Your task to perform on an android device: Open calendar and show me the third week of next month Image 0: 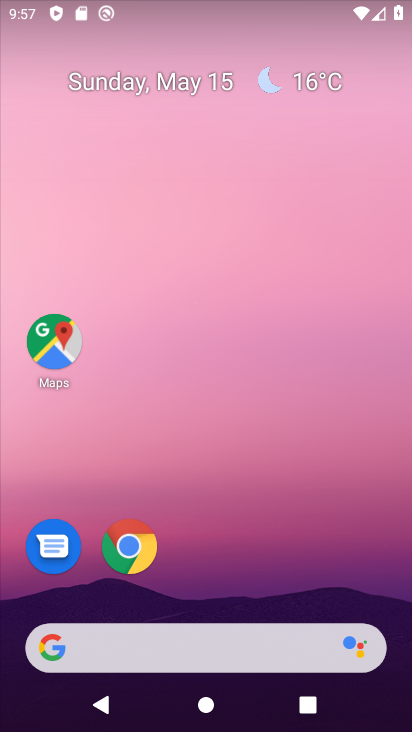
Step 0: press home button
Your task to perform on an android device: Open calendar and show me the third week of next month Image 1: 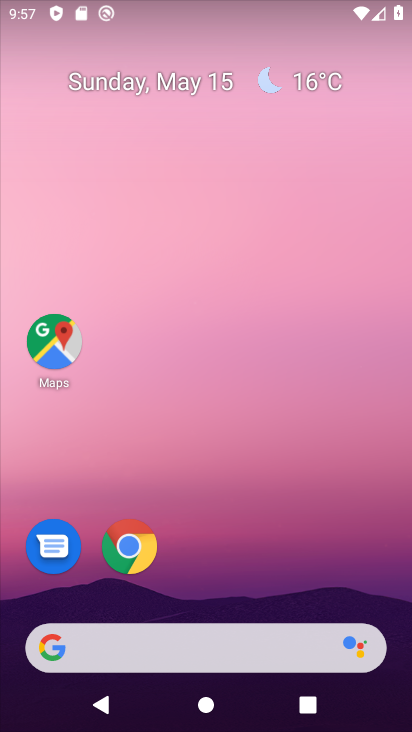
Step 1: click (203, 125)
Your task to perform on an android device: Open calendar and show me the third week of next month Image 2: 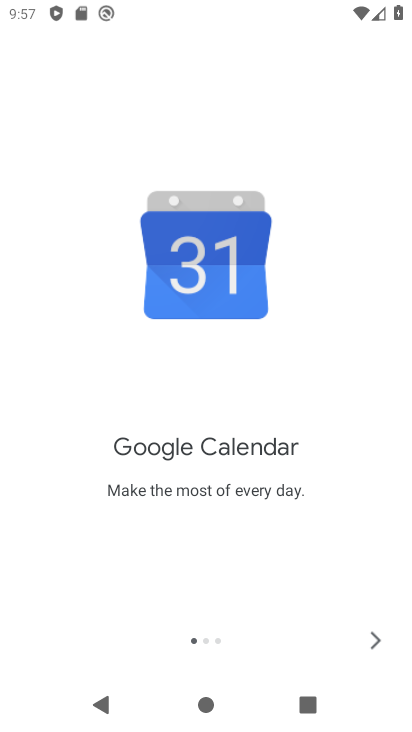
Step 2: click (377, 632)
Your task to perform on an android device: Open calendar and show me the third week of next month Image 3: 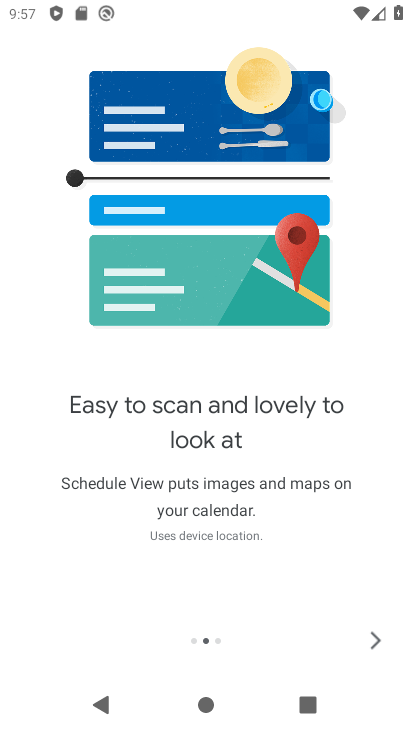
Step 3: click (379, 638)
Your task to perform on an android device: Open calendar and show me the third week of next month Image 4: 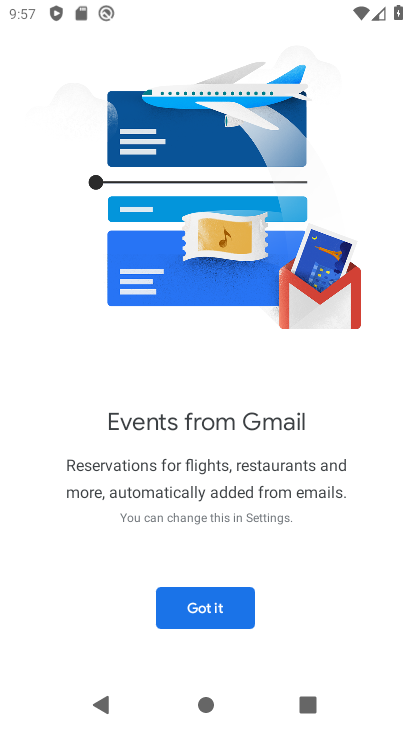
Step 4: click (214, 603)
Your task to perform on an android device: Open calendar and show me the third week of next month Image 5: 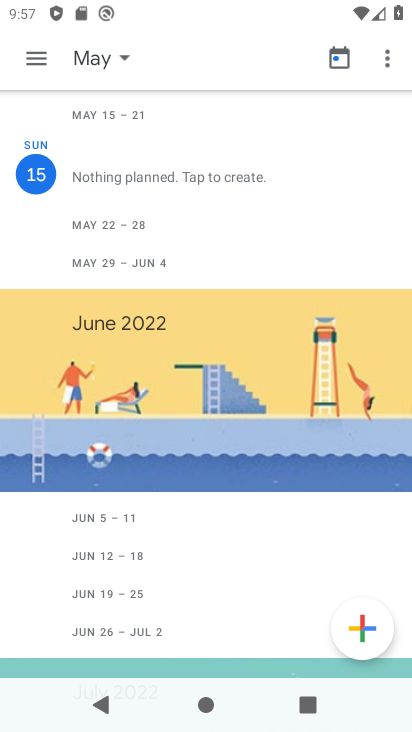
Step 5: click (122, 58)
Your task to perform on an android device: Open calendar and show me the third week of next month Image 6: 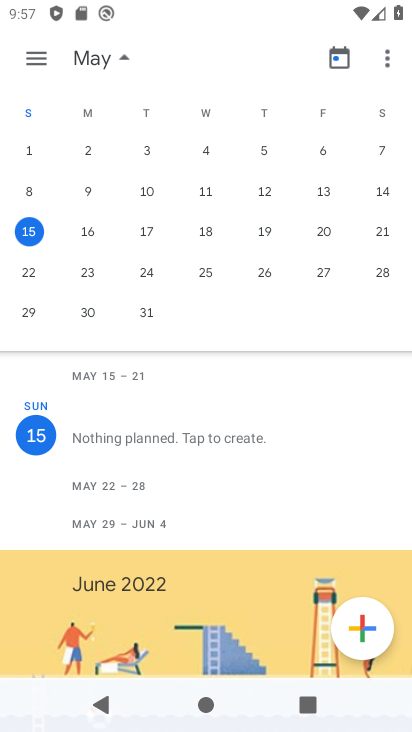
Step 6: drag from (214, 216) to (72, 227)
Your task to perform on an android device: Open calendar and show me the third week of next month Image 7: 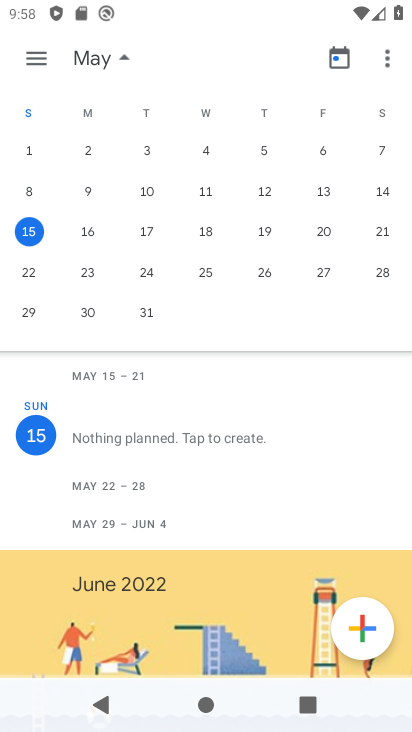
Step 7: drag from (207, 225) to (31, 266)
Your task to perform on an android device: Open calendar and show me the third week of next month Image 8: 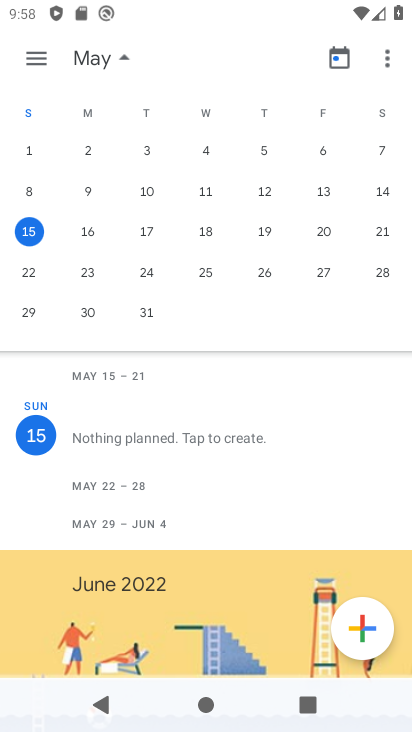
Step 8: drag from (234, 218) to (14, 298)
Your task to perform on an android device: Open calendar and show me the third week of next month Image 9: 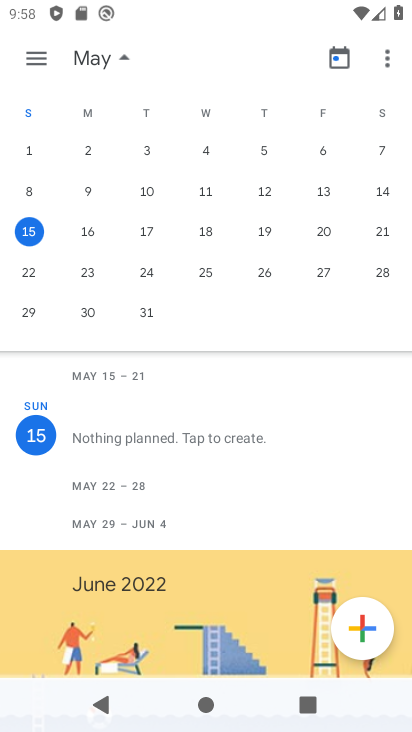
Step 9: drag from (159, 213) to (80, 242)
Your task to perform on an android device: Open calendar and show me the third week of next month Image 10: 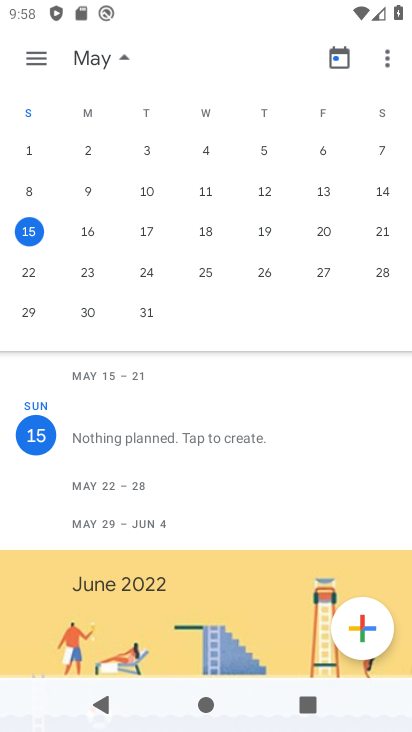
Step 10: drag from (220, 204) to (66, 220)
Your task to perform on an android device: Open calendar and show me the third week of next month Image 11: 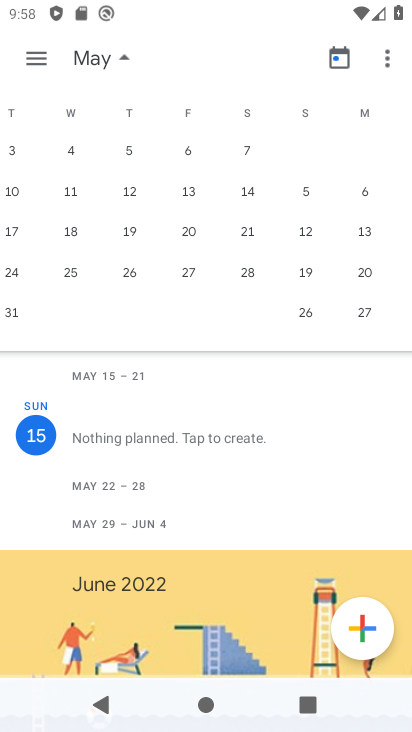
Step 11: drag from (222, 214) to (29, 221)
Your task to perform on an android device: Open calendar and show me the third week of next month Image 12: 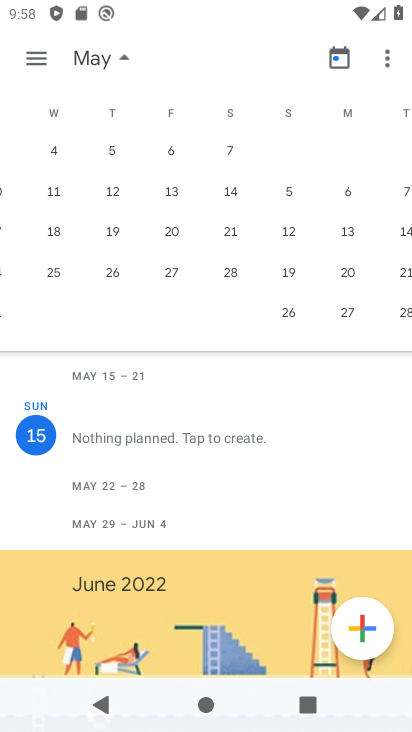
Step 12: drag from (191, 220) to (51, 226)
Your task to perform on an android device: Open calendar and show me the third week of next month Image 13: 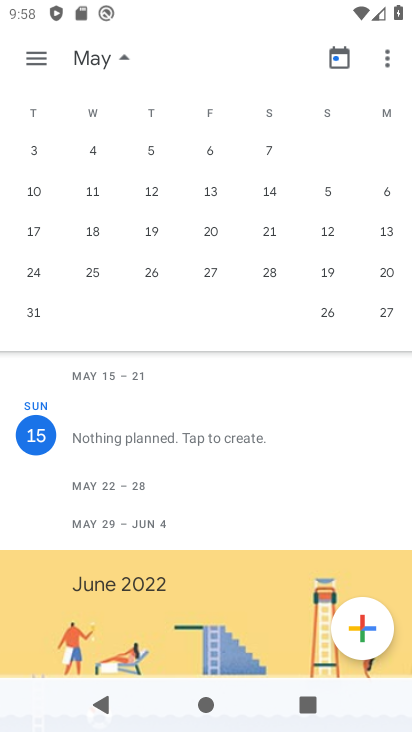
Step 13: drag from (316, 230) to (21, 221)
Your task to perform on an android device: Open calendar and show me the third week of next month Image 14: 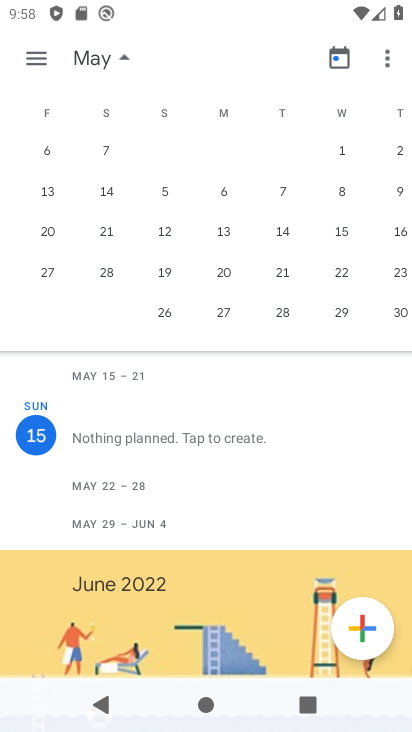
Step 14: click (62, 229)
Your task to perform on an android device: Open calendar and show me the third week of next month Image 15: 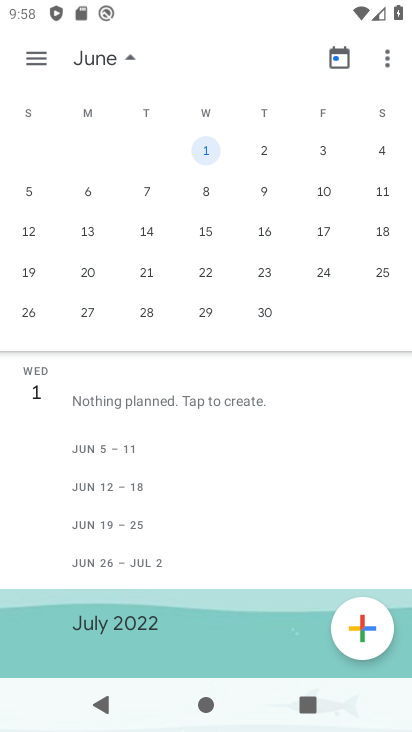
Step 15: drag from (48, 236) to (0, 199)
Your task to perform on an android device: Open calendar and show me the third week of next month Image 16: 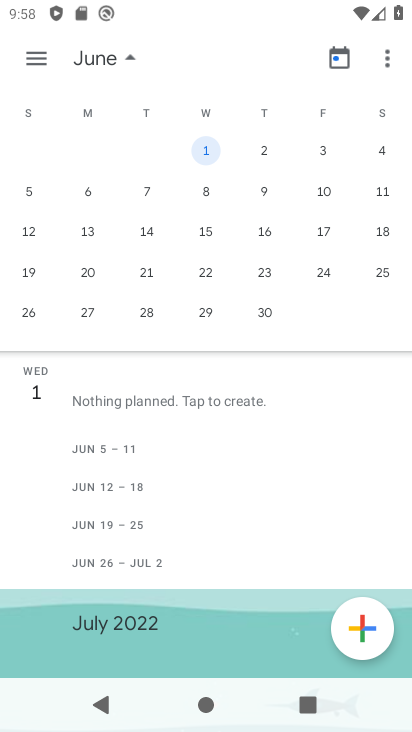
Step 16: click (199, 226)
Your task to perform on an android device: Open calendar and show me the third week of next month Image 17: 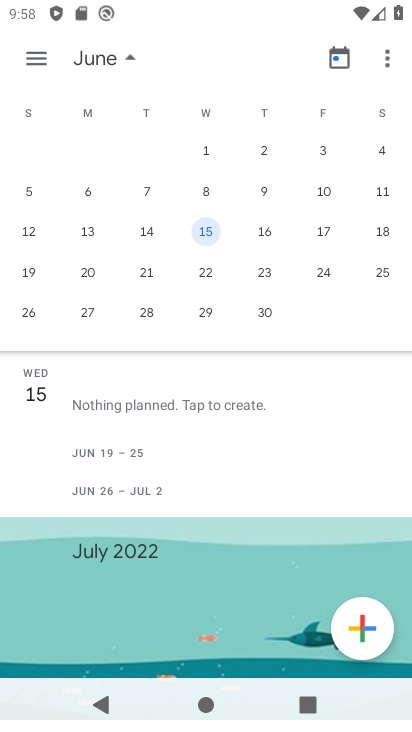
Step 17: click (199, 226)
Your task to perform on an android device: Open calendar and show me the third week of next month Image 18: 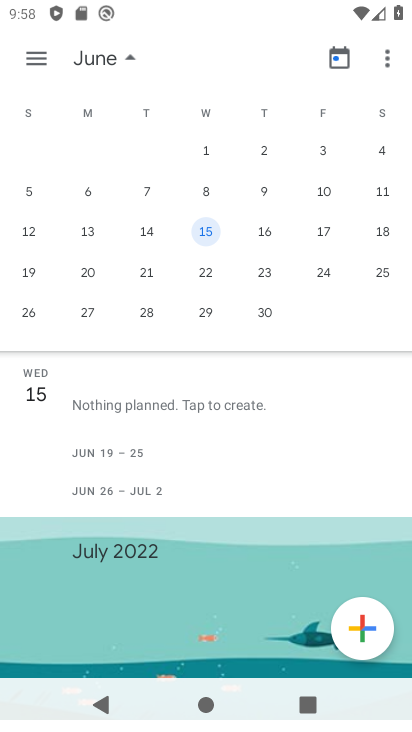
Step 18: click (199, 226)
Your task to perform on an android device: Open calendar and show me the third week of next month Image 19: 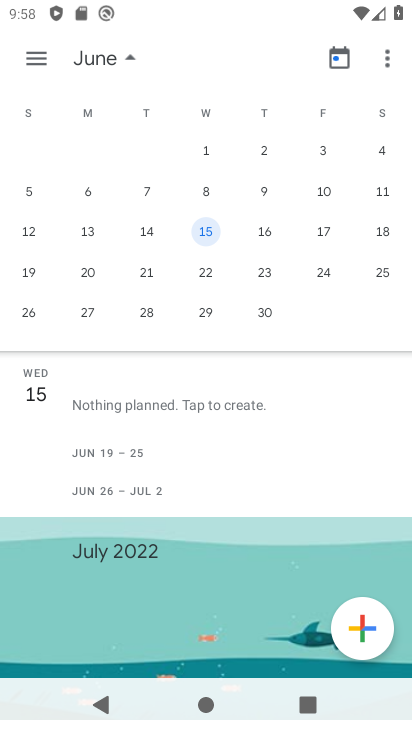
Step 19: click (202, 230)
Your task to perform on an android device: Open calendar and show me the third week of next month Image 20: 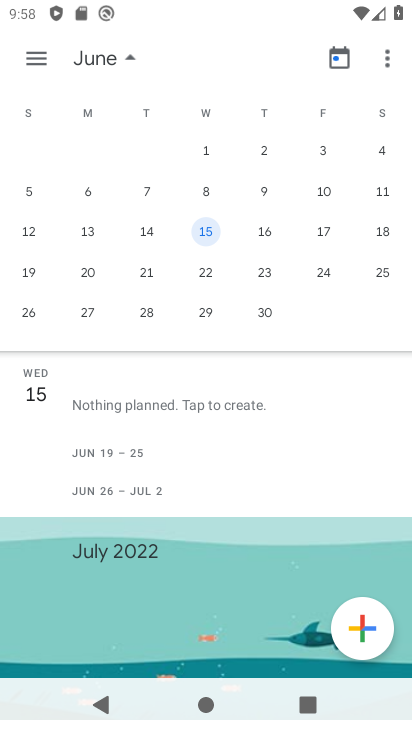
Step 20: task complete